Your task to perform on an android device: Go to settings Image 0: 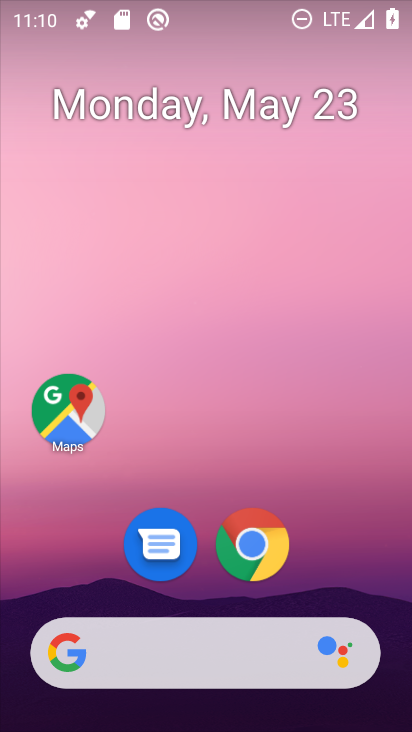
Step 0: drag from (399, 622) to (287, 47)
Your task to perform on an android device: Go to settings Image 1: 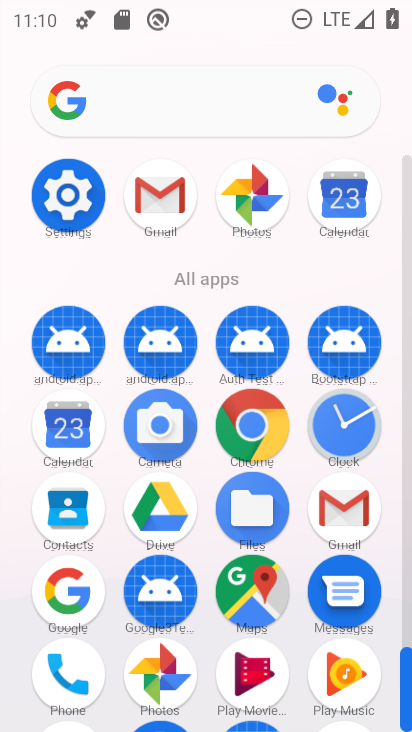
Step 1: drag from (411, 628) to (403, 584)
Your task to perform on an android device: Go to settings Image 2: 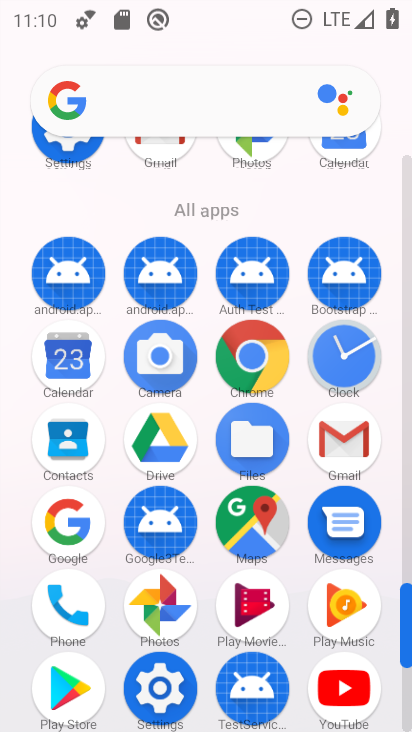
Step 2: click (160, 687)
Your task to perform on an android device: Go to settings Image 3: 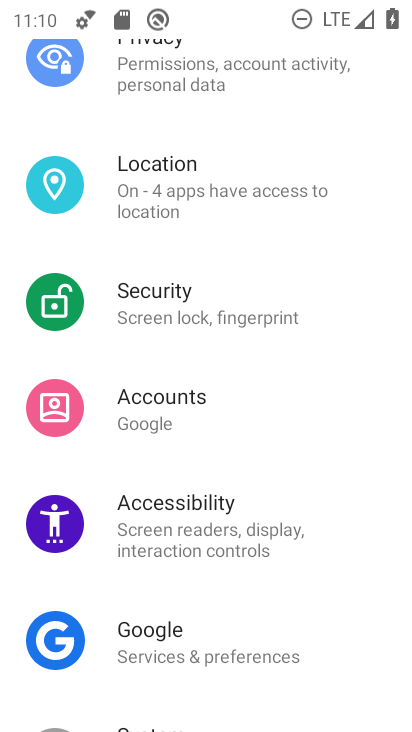
Step 3: task complete